Your task to perform on an android device: Open the calendar app, open the side menu, and click the "Day" option Image 0: 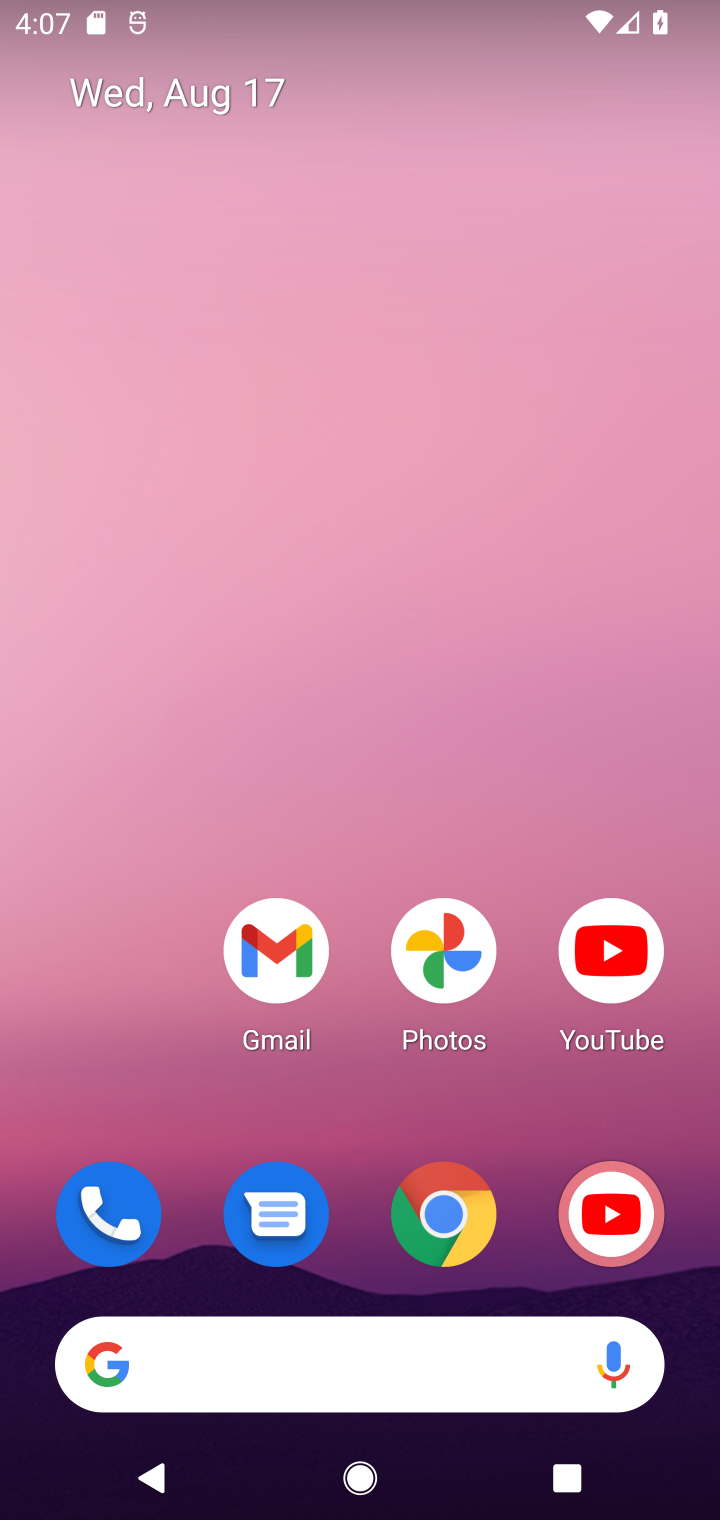
Step 0: drag from (79, 937) to (159, 378)
Your task to perform on an android device: Open the calendar app, open the side menu, and click the "Day" option Image 1: 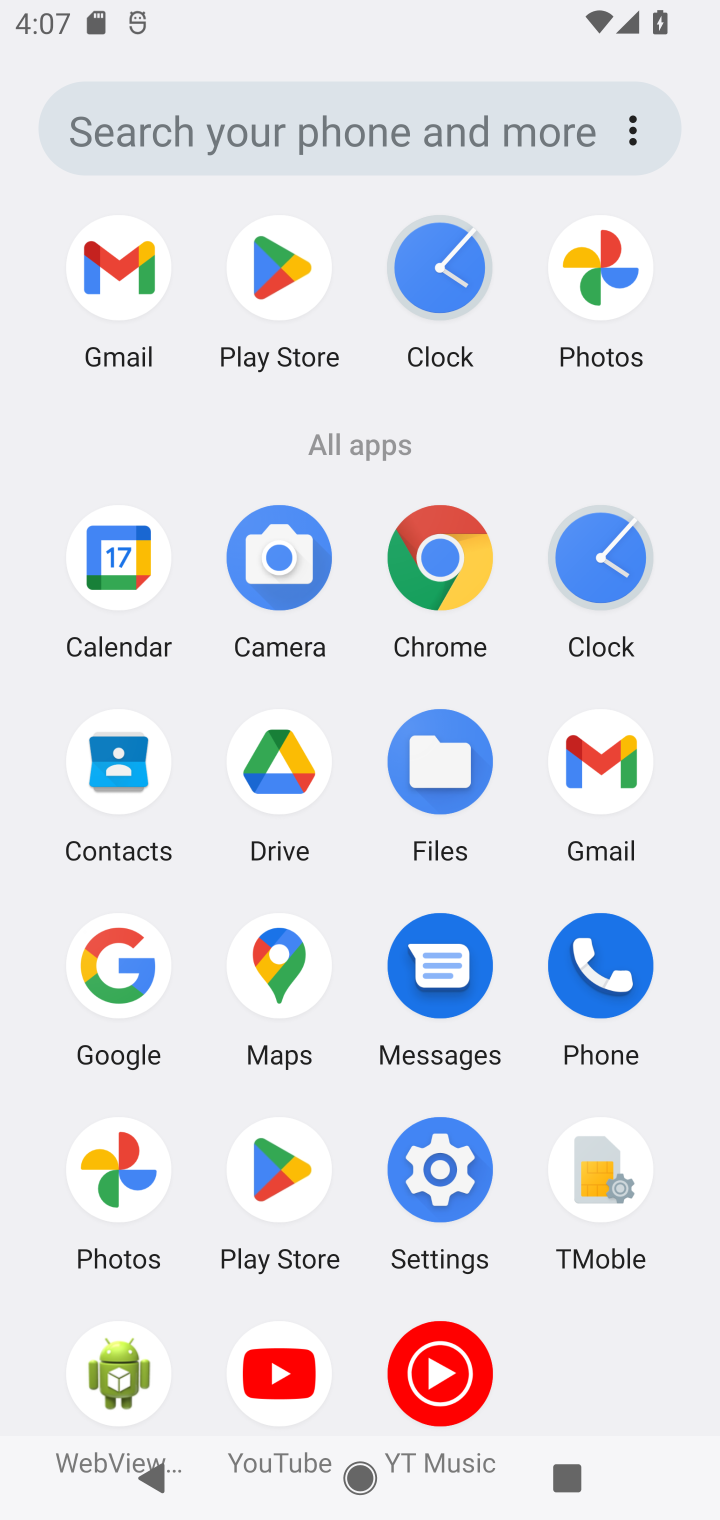
Step 1: click (75, 581)
Your task to perform on an android device: Open the calendar app, open the side menu, and click the "Day" option Image 2: 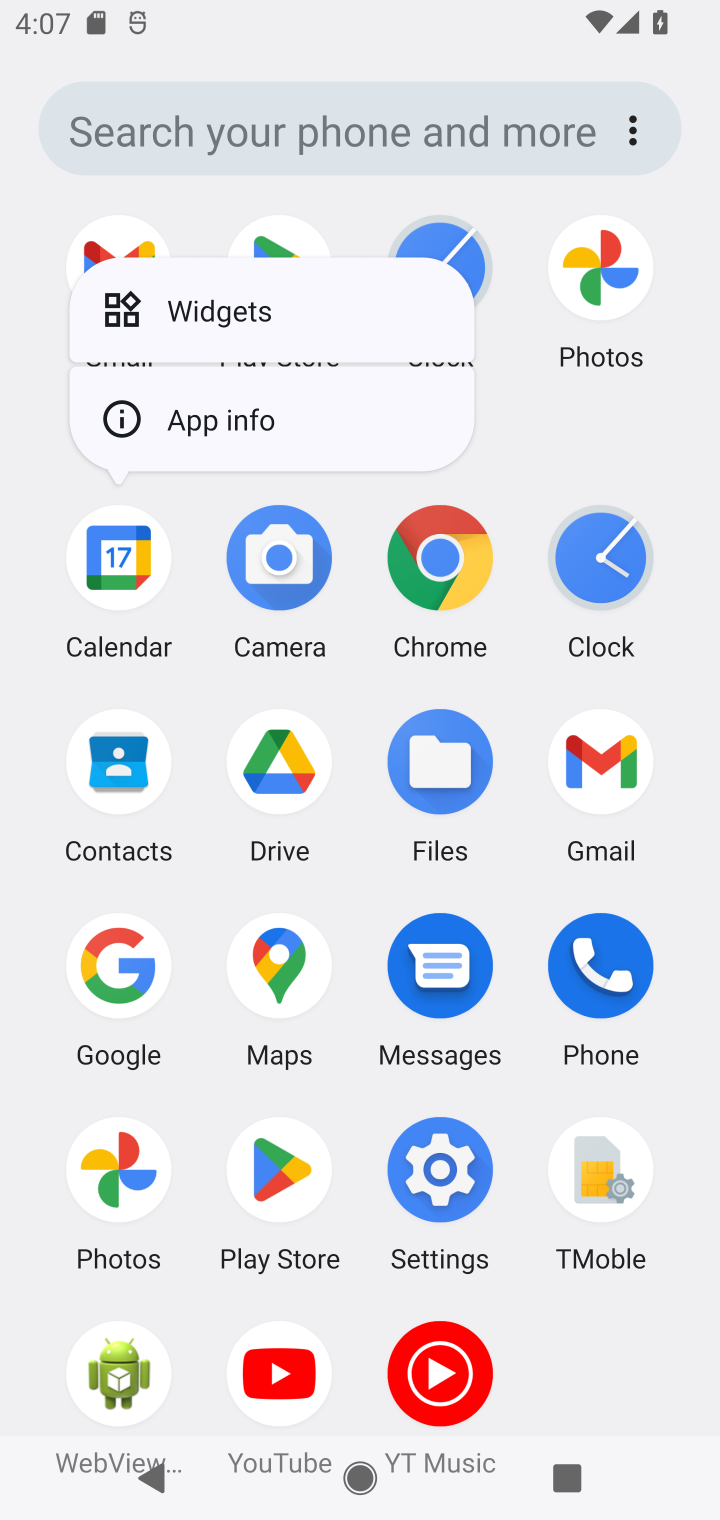
Step 2: click (101, 567)
Your task to perform on an android device: Open the calendar app, open the side menu, and click the "Day" option Image 3: 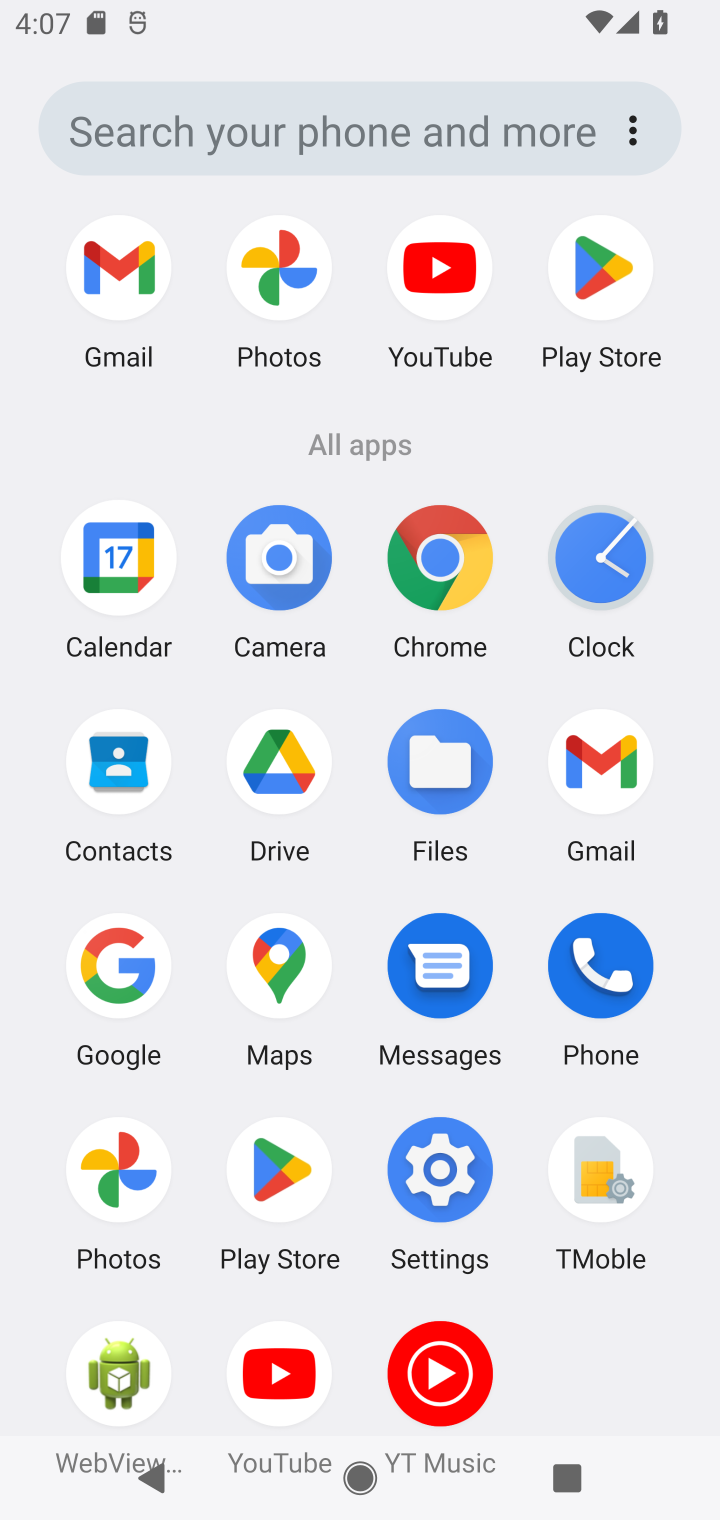
Step 3: click (101, 559)
Your task to perform on an android device: Open the calendar app, open the side menu, and click the "Day" option Image 4: 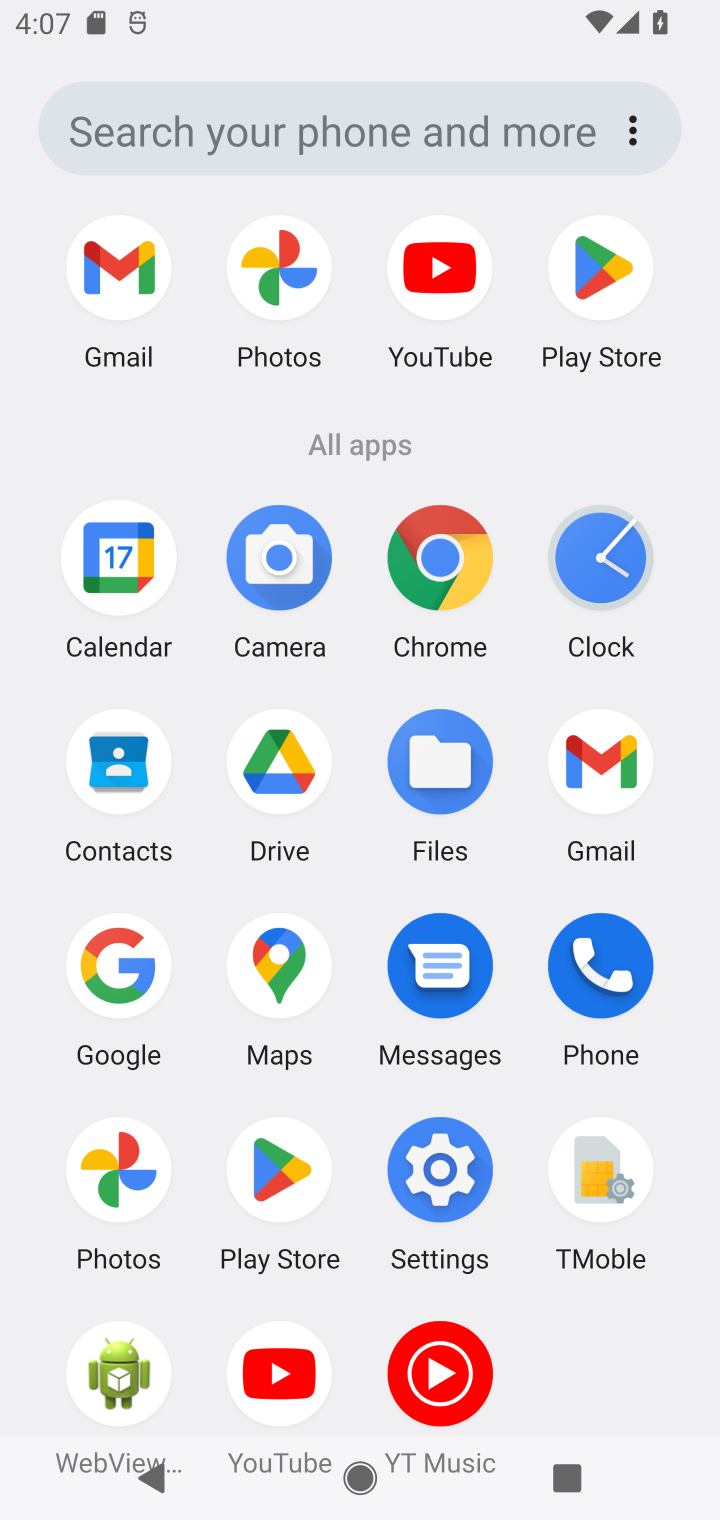
Step 4: click (106, 568)
Your task to perform on an android device: Open the calendar app, open the side menu, and click the "Day" option Image 5: 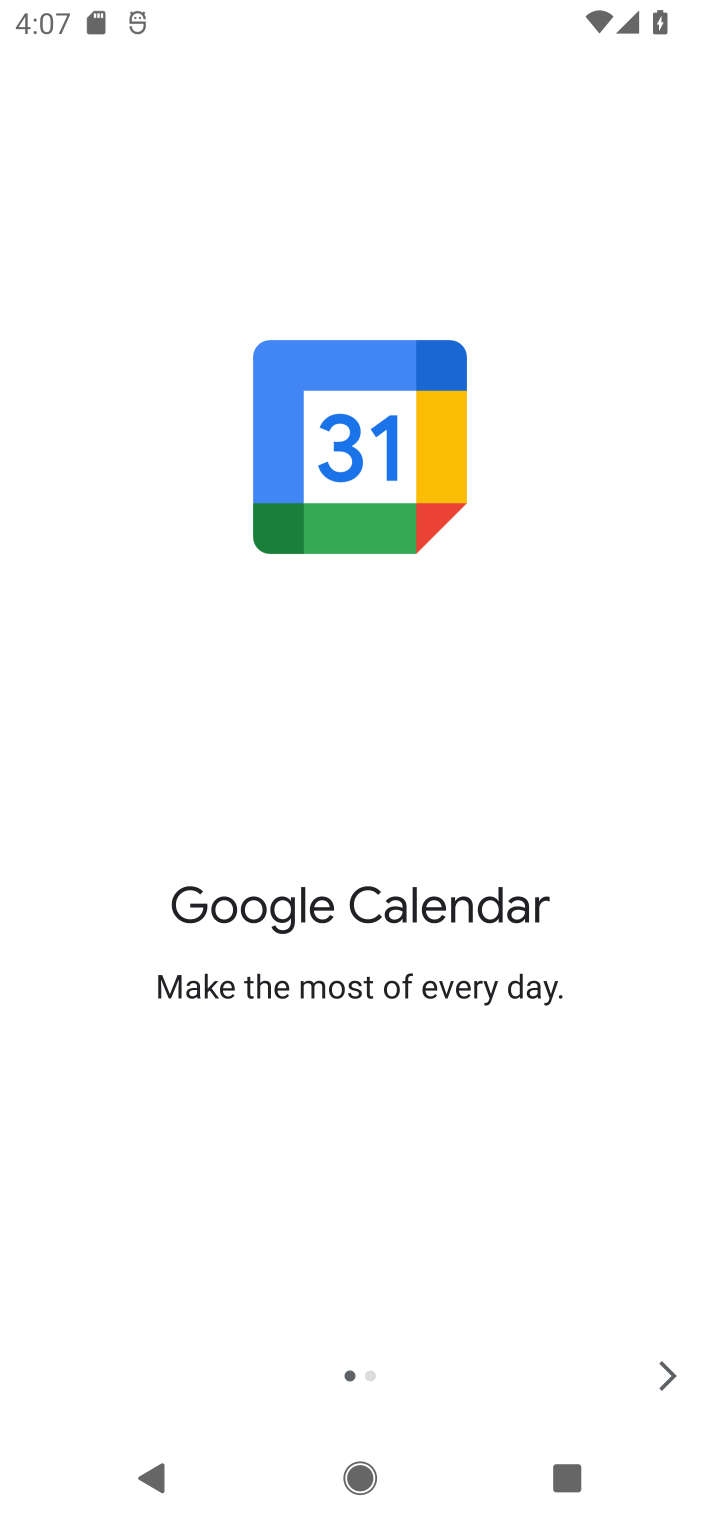
Step 5: click (661, 1392)
Your task to perform on an android device: Open the calendar app, open the side menu, and click the "Day" option Image 6: 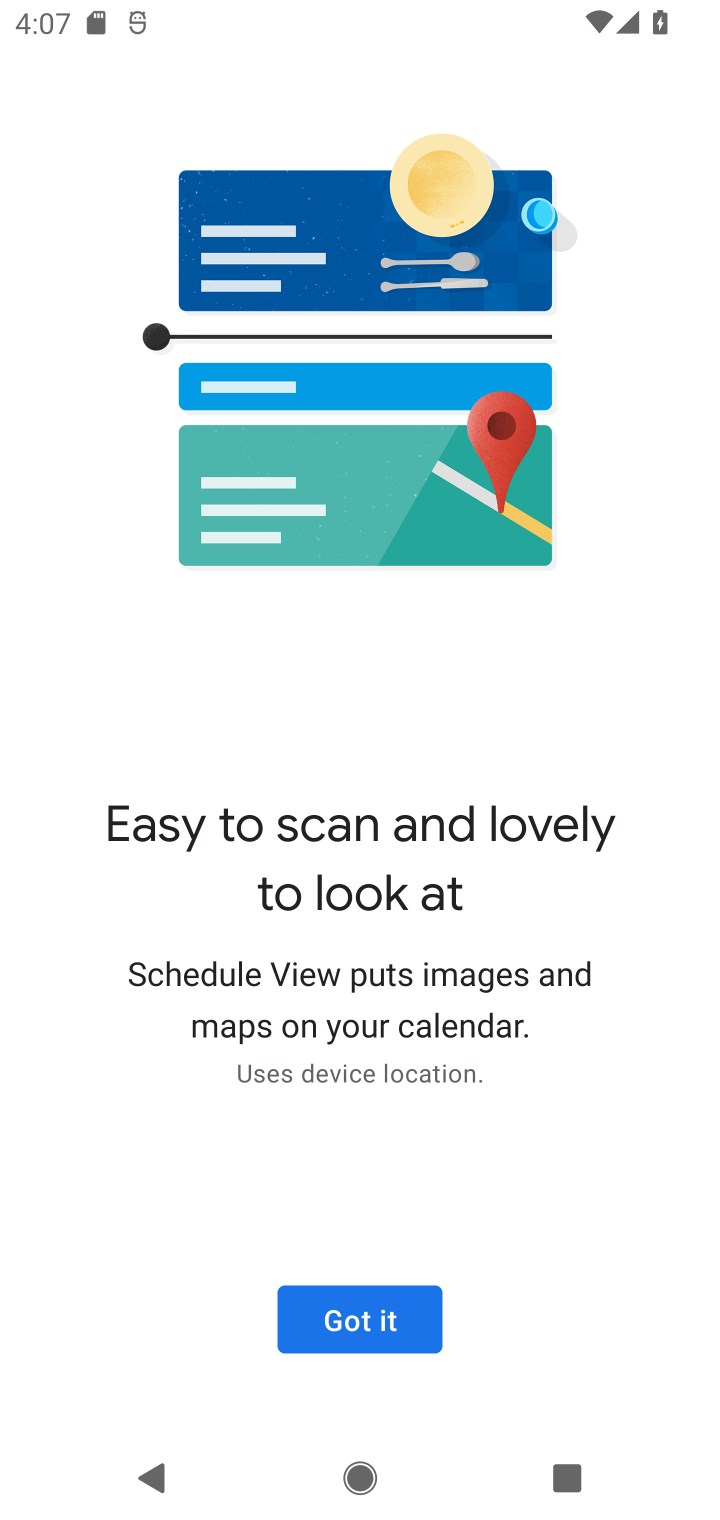
Step 6: click (331, 1321)
Your task to perform on an android device: Open the calendar app, open the side menu, and click the "Day" option Image 7: 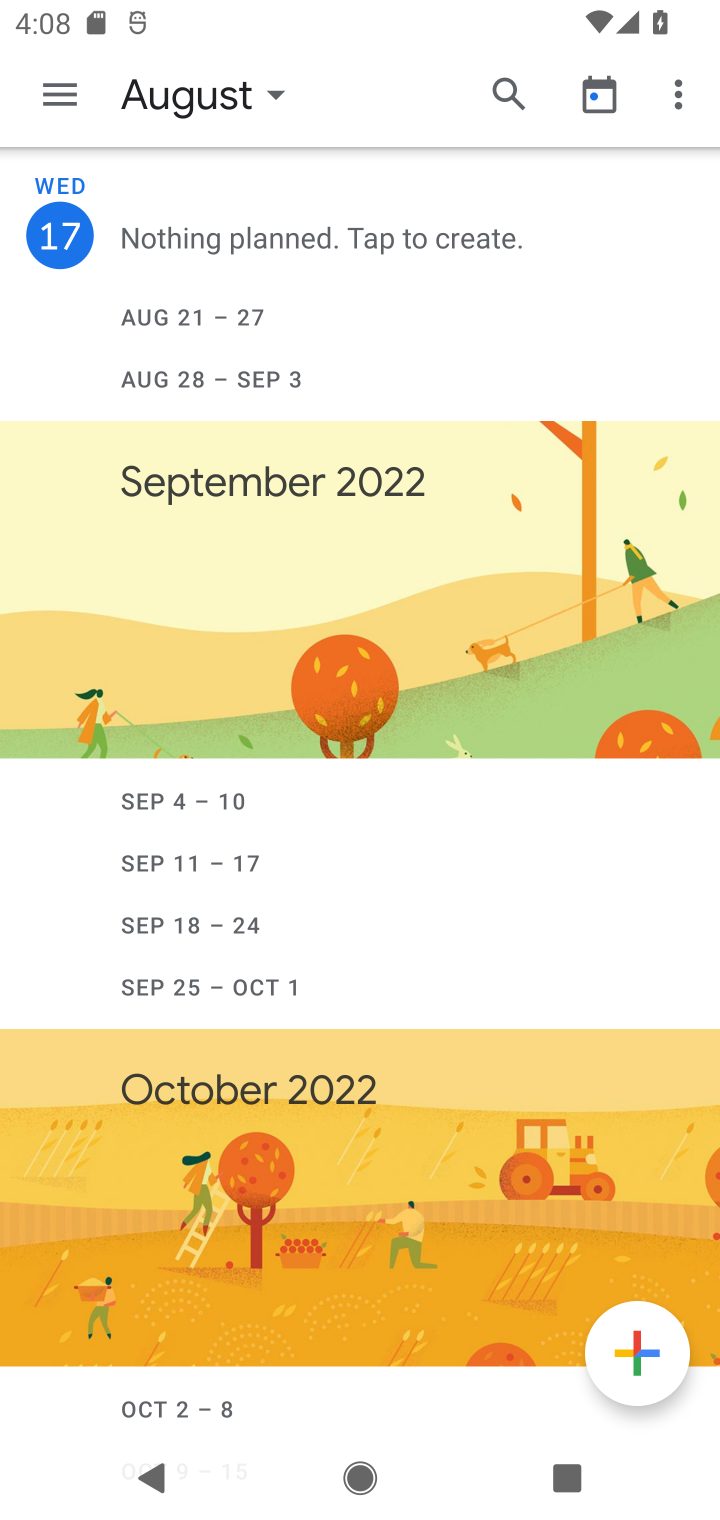
Step 7: click (53, 83)
Your task to perform on an android device: Open the calendar app, open the side menu, and click the "Day" option Image 8: 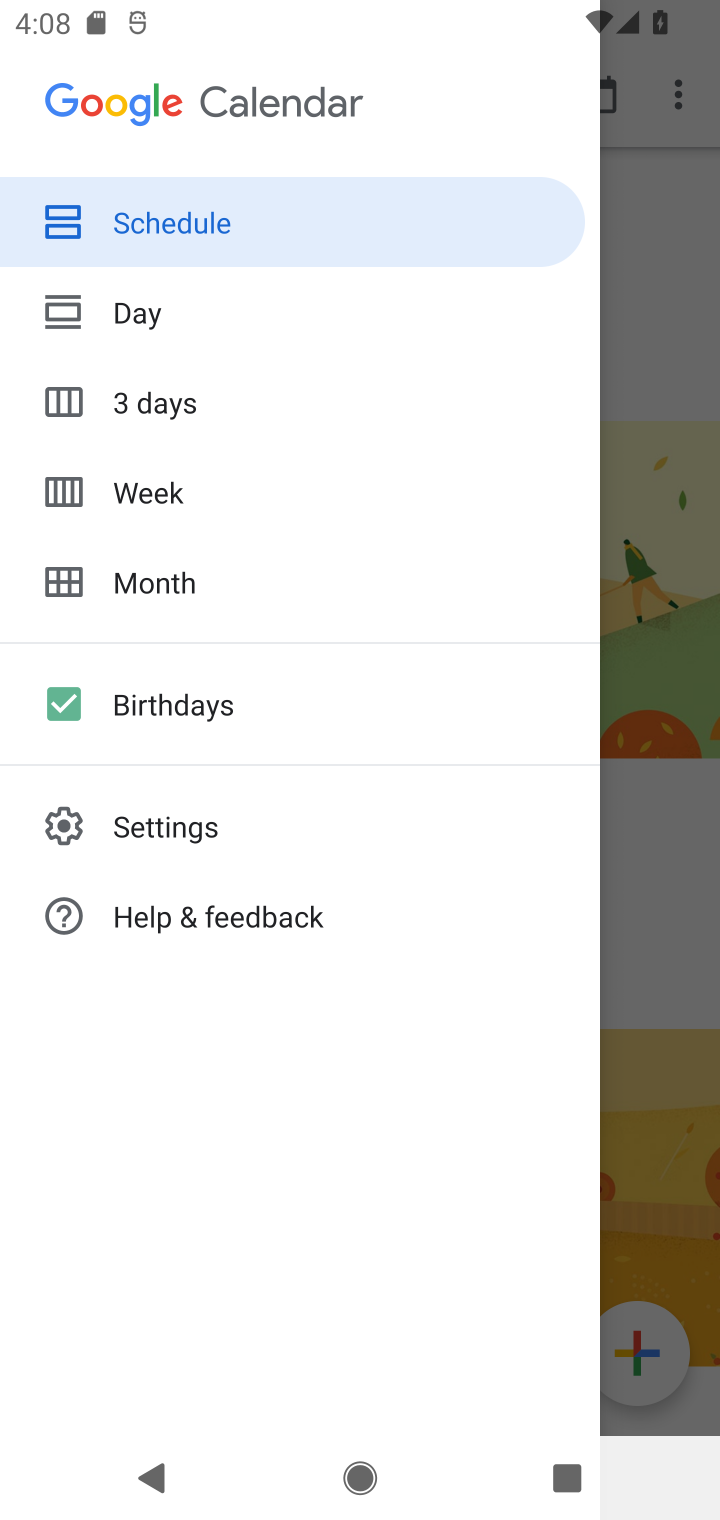
Step 8: click (97, 291)
Your task to perform on an android device: Open the calendar app, open the side menu, and click the "Day" option Image 9: 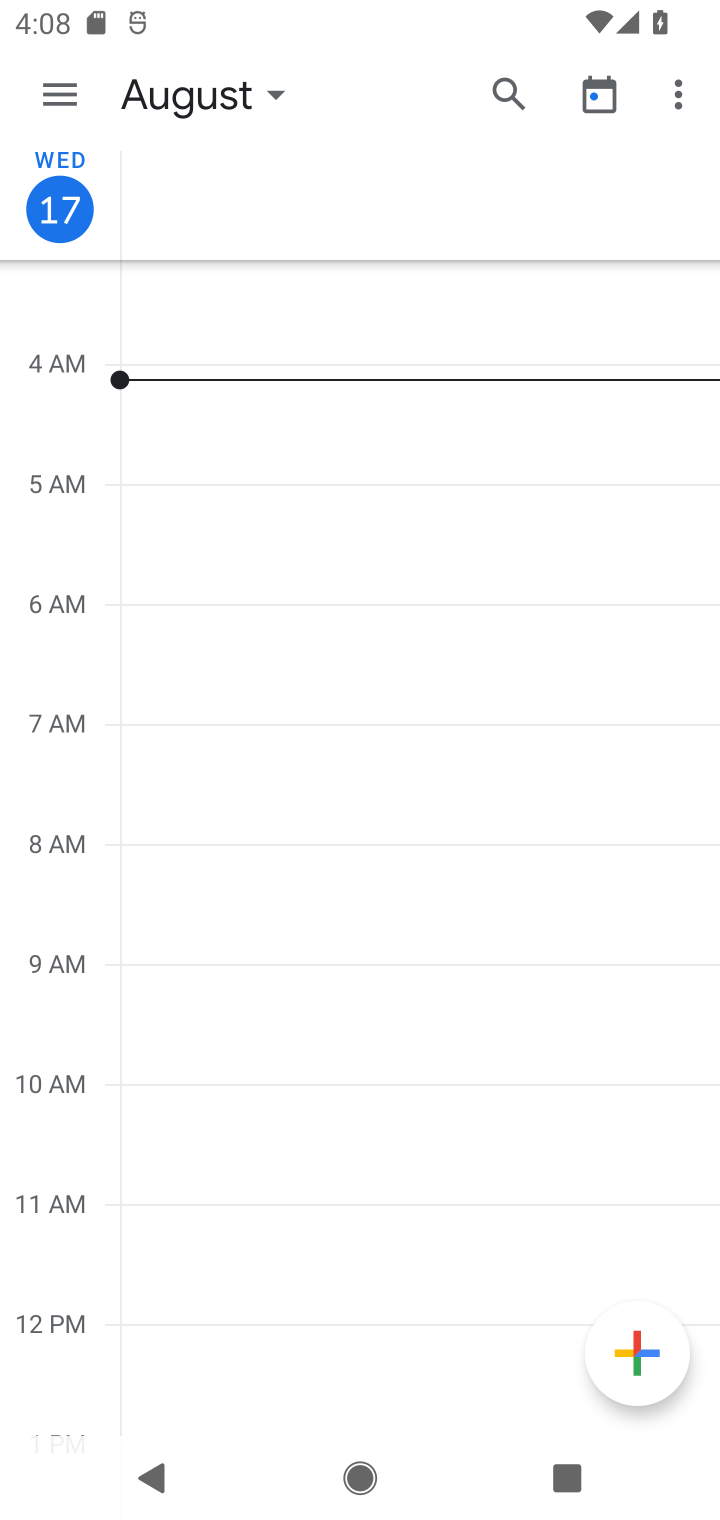
Step 9: task complete